Your task to perform on an android device: see tabs open on other devices in the chrome app Image 0: 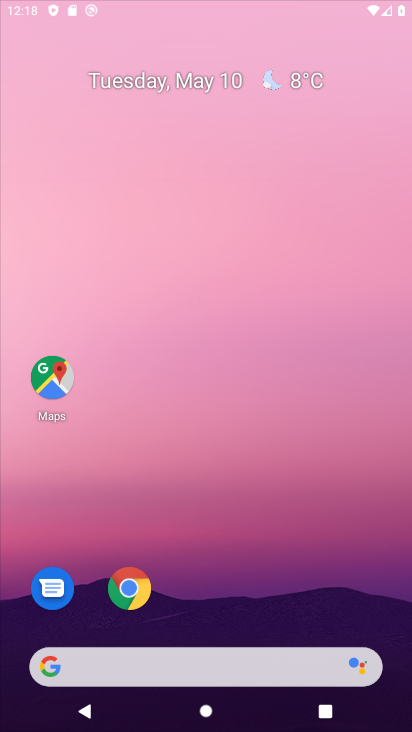
Step 0: click (286, 149)
Your task to perform on an android device: see tabs open on other devices in the chrome app Image 1: 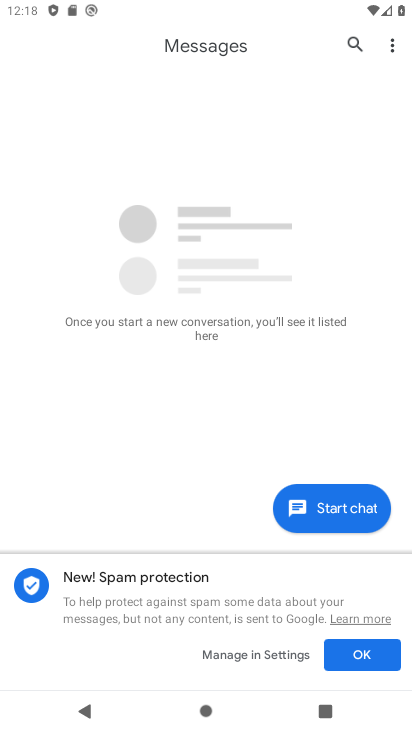
Step 1: press home button
Your task to perform on an android device: see tabs open on other devices in the chrome app Image 2: 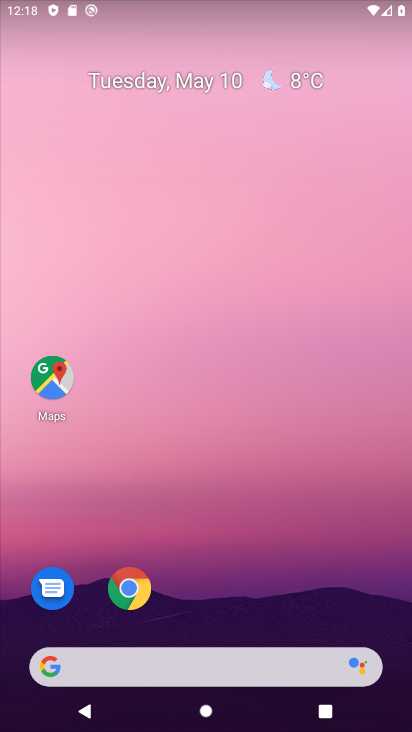
Step 2: click (141, 593)
Your task to perform on an android device: see tabs open on other devices in the chrome app Image 3: 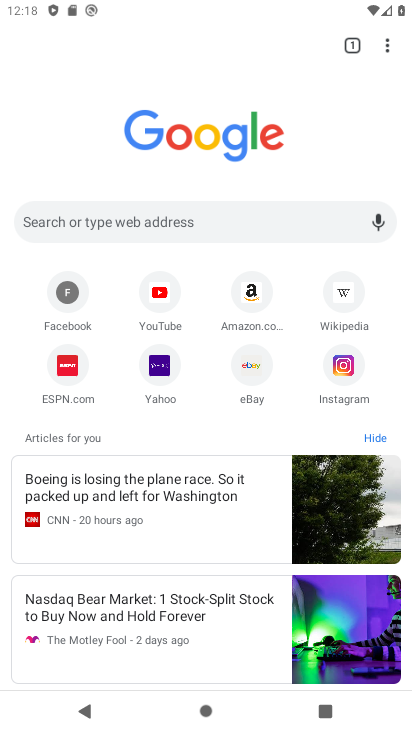
Step 3: drag from (383, 54) to (315, 214)
Your task to perform on an android device: see tabs open on other devices in the chrome app Image 4: 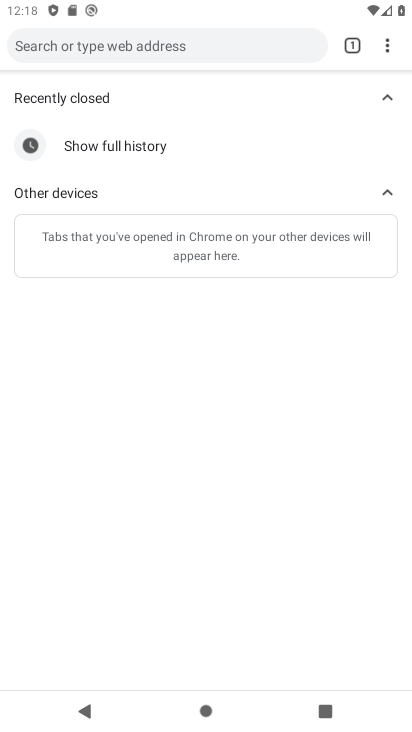
Step 4: click (133, 149)
Your task to perform on an android device: see tabs open on other devices in the chrome app Image 5: 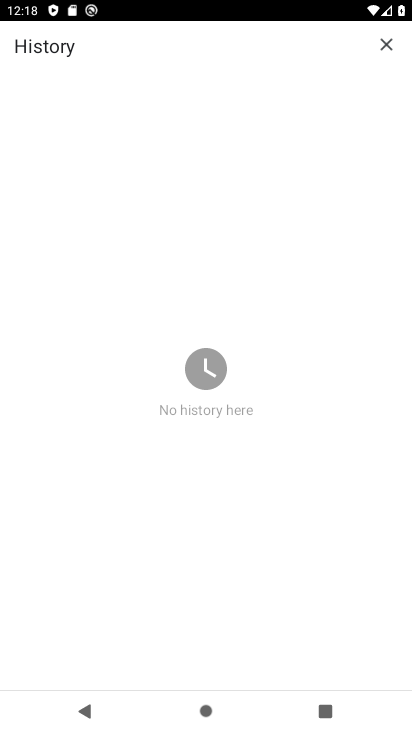
Step 5: task complete